Your task to perform on an android device: see tabs open on other devices in the chrome app Image 0: 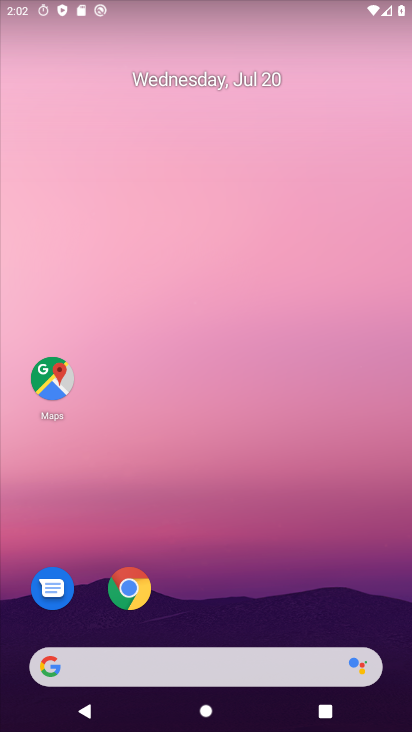
Step 0: drag from (265, 668) to (310, 201)
Your task to perform on an android device: see tabs open on other devices in the chrome app Image 1: 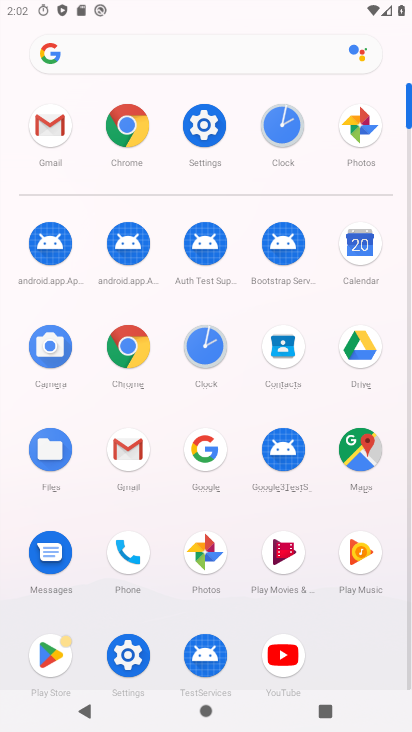
Step 1: click (148, 348)
Your task to perform on an android device: see tabs open on other devices in the chrome app Image 2: 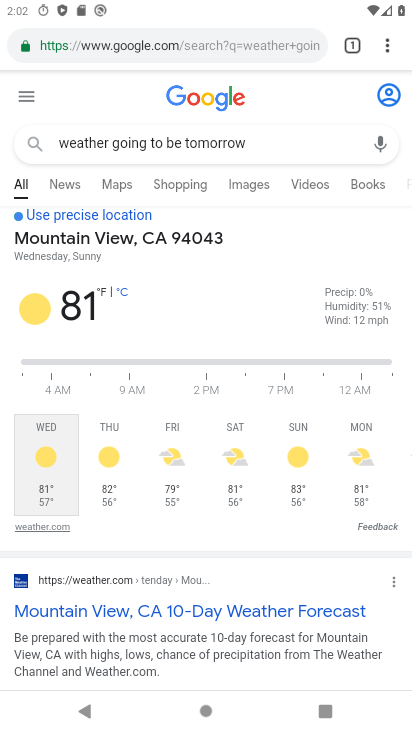
Step 2: task complete